Your task to perform on an android device: Set an alarm for 7am Image 0: 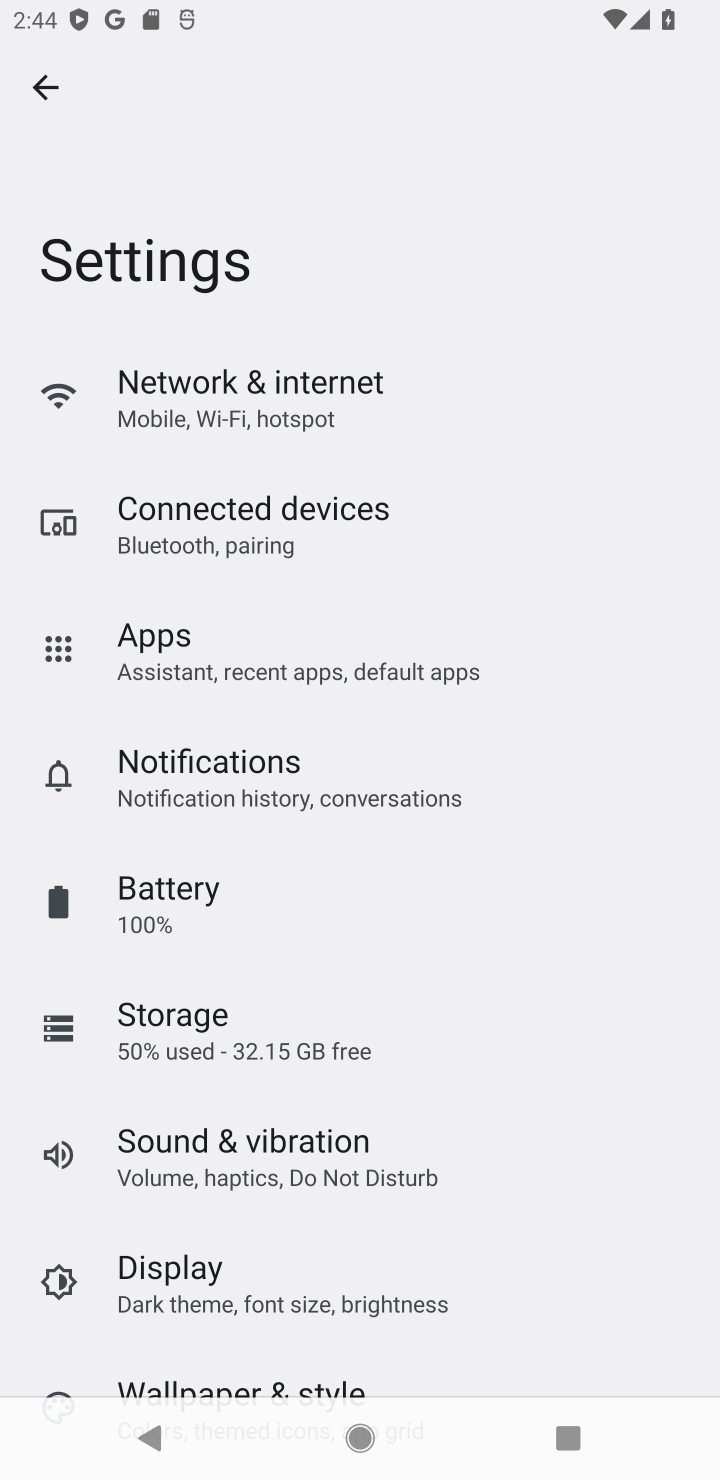
Step 0: press home button
Your task to perform on an android device: Set an alarm for 7am Image 1: 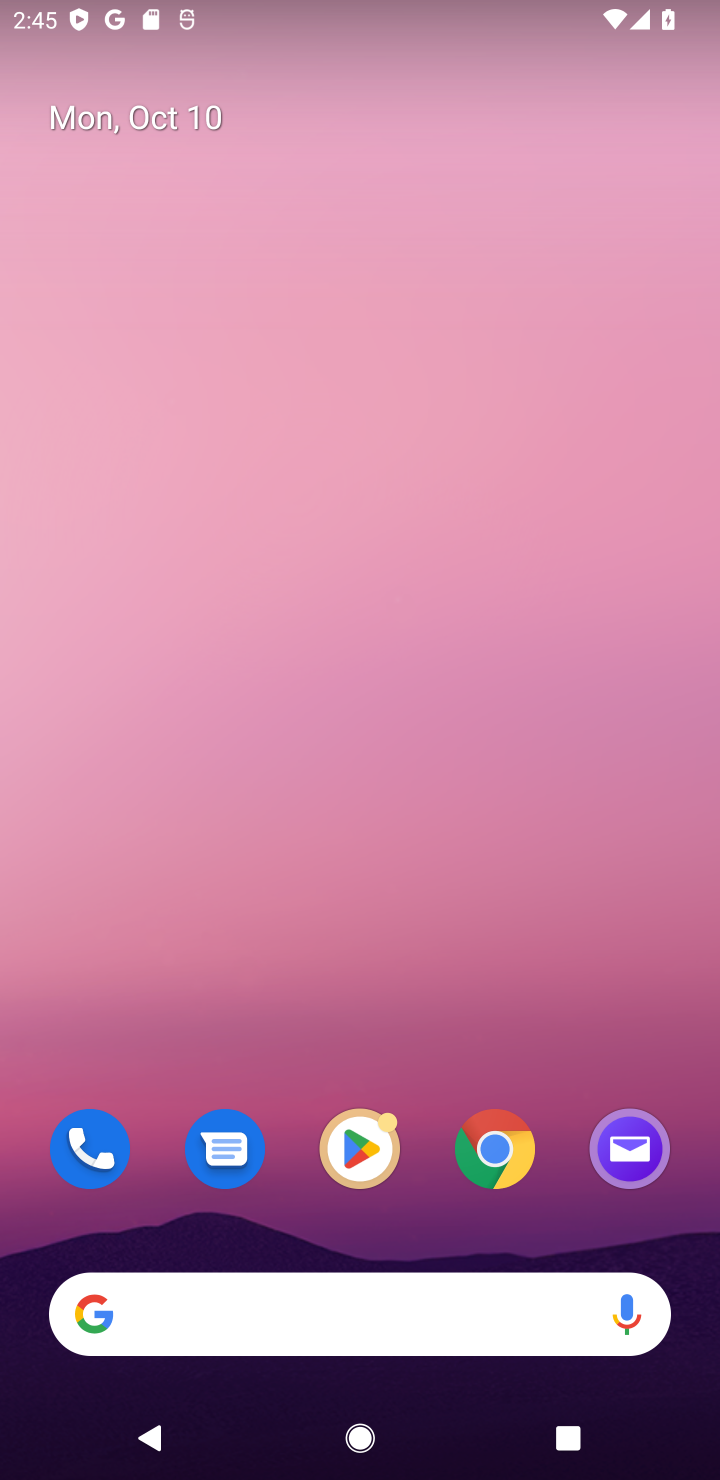
Step 1: drag from (301, 1232) to (330, 166)
Your task to perform on an android device: Set an alarm for 7am Image 2: 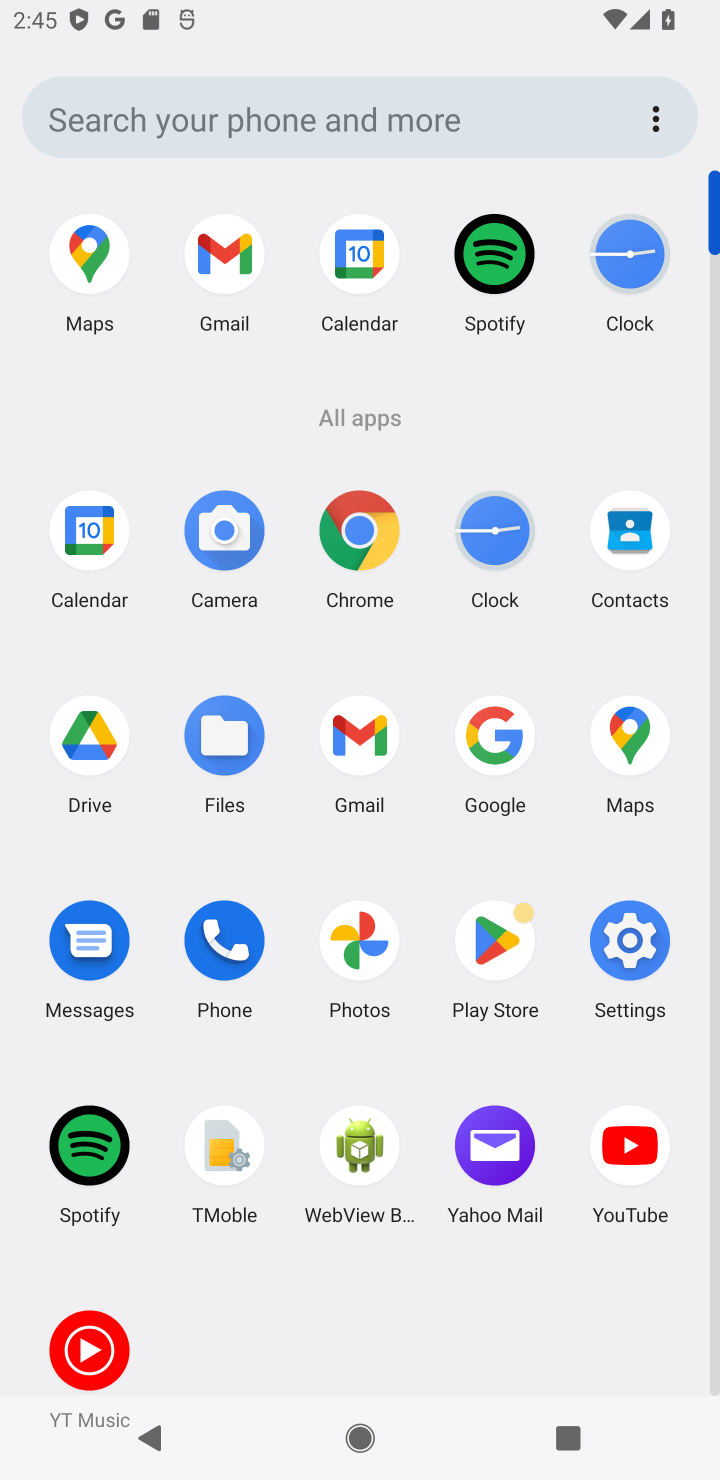
Step 2: click (510, 544)
Your task to perform on an android device: Set an alarm for 7am Image 3: 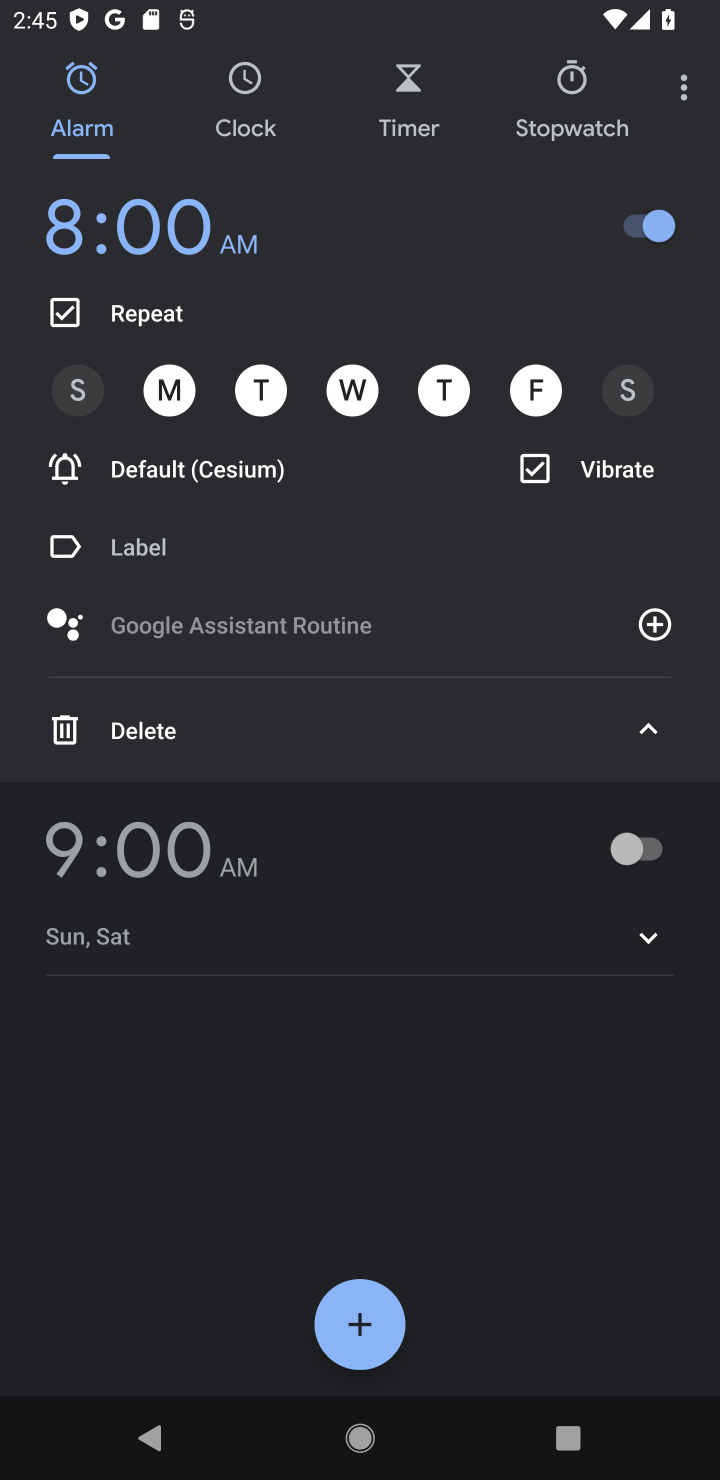
Step 3: click (362, 1333)
Your task to perform on an android device: Set an alarm for 7am Image 4: 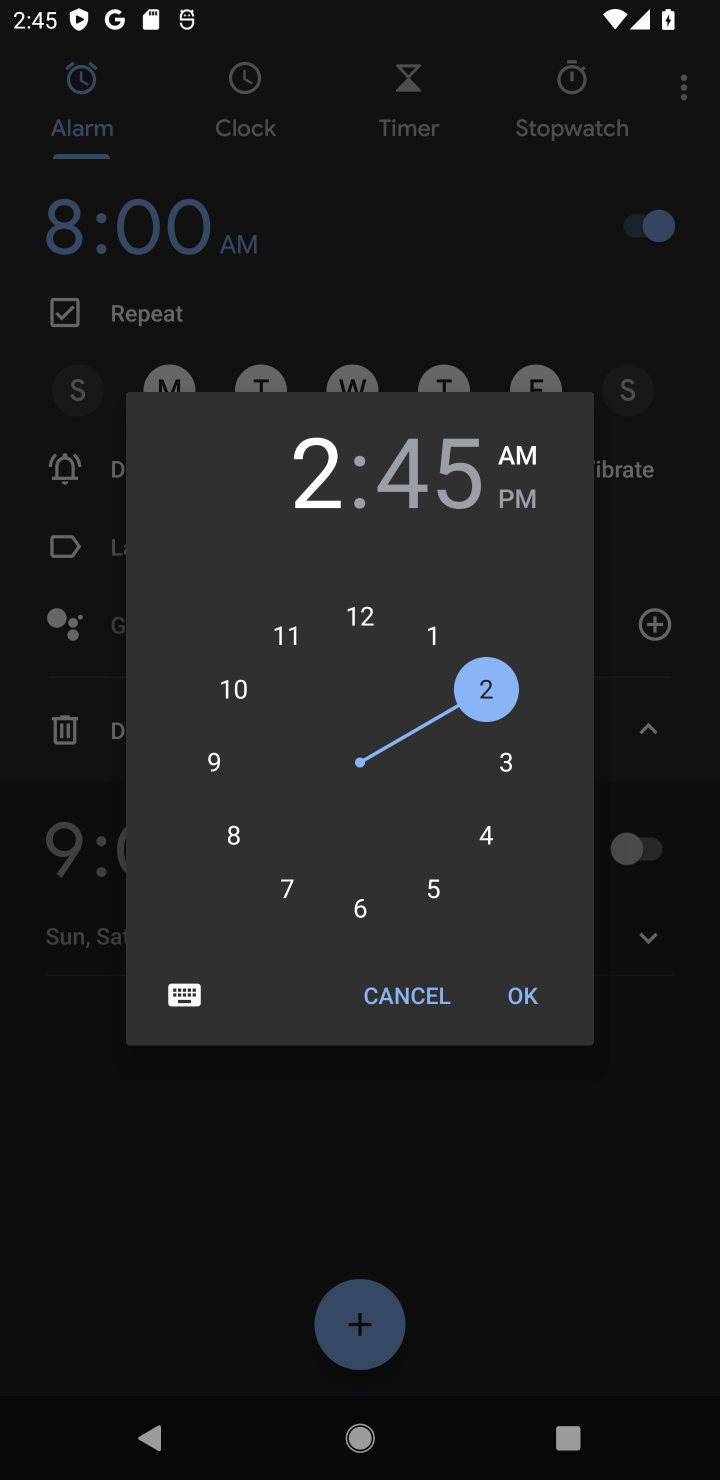
Step 4: click (290, 906)
Your task to perform on an android device: Set an alarm for 7am Image 5: 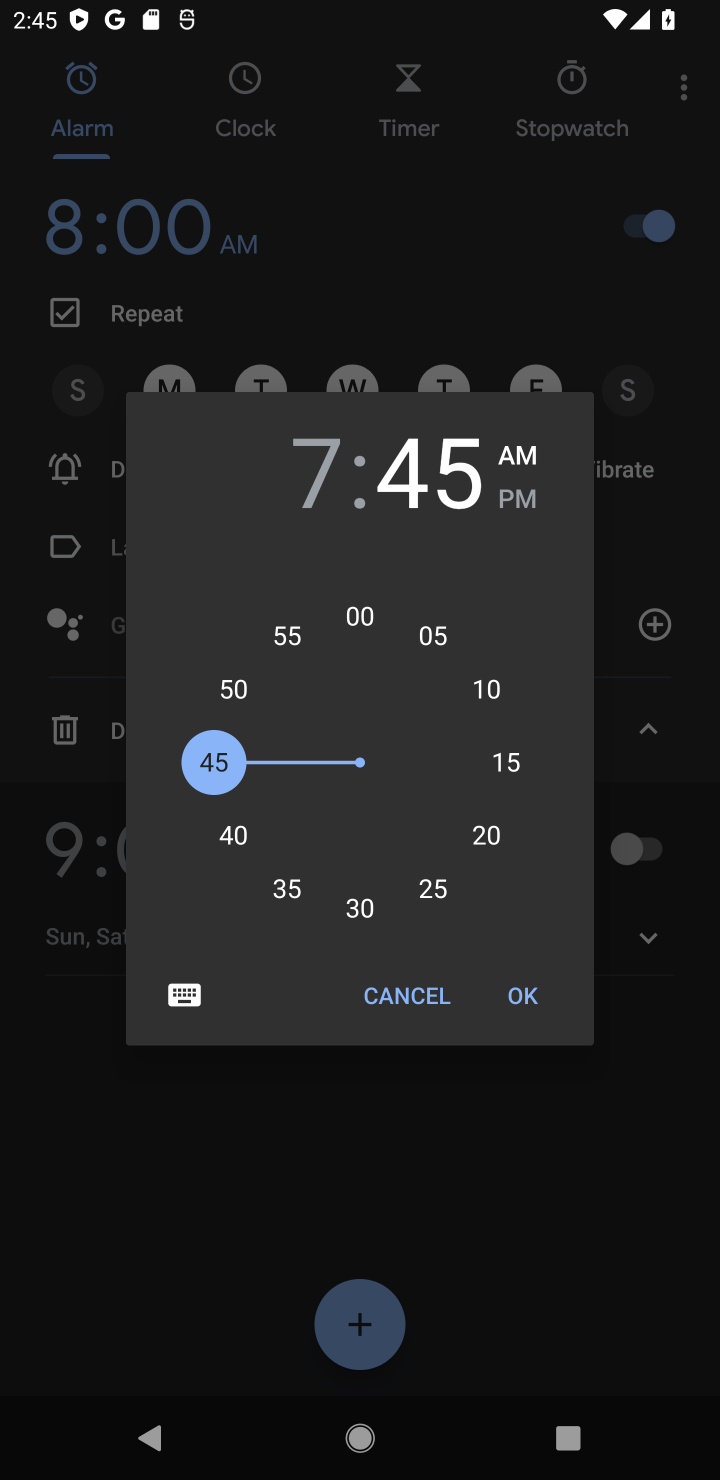
Step 5: click (366, 615)
Your task to perform on an android device: Set an alarm for 7am Image 6: 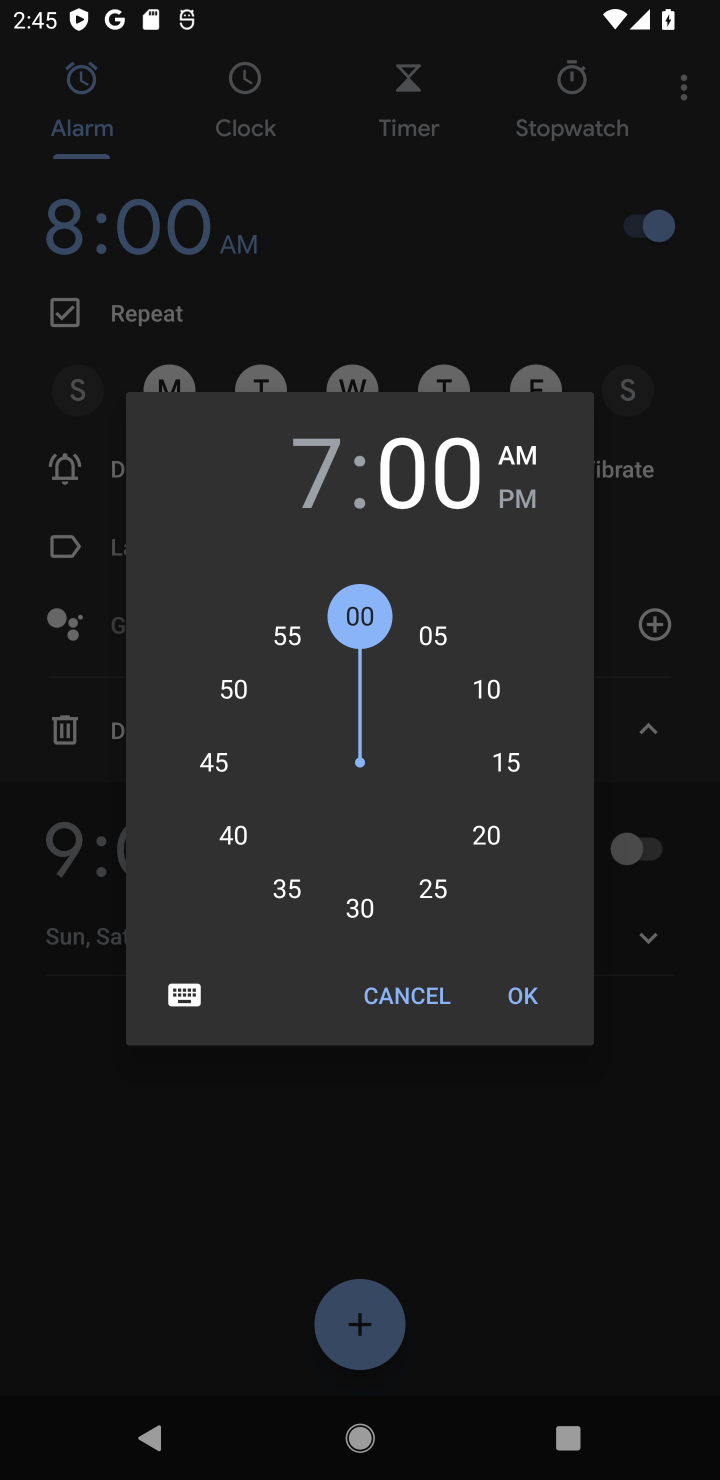
Step 6: click (523, 991)
Your task to perform on an android device: Set an alarm for 7am Image 7: 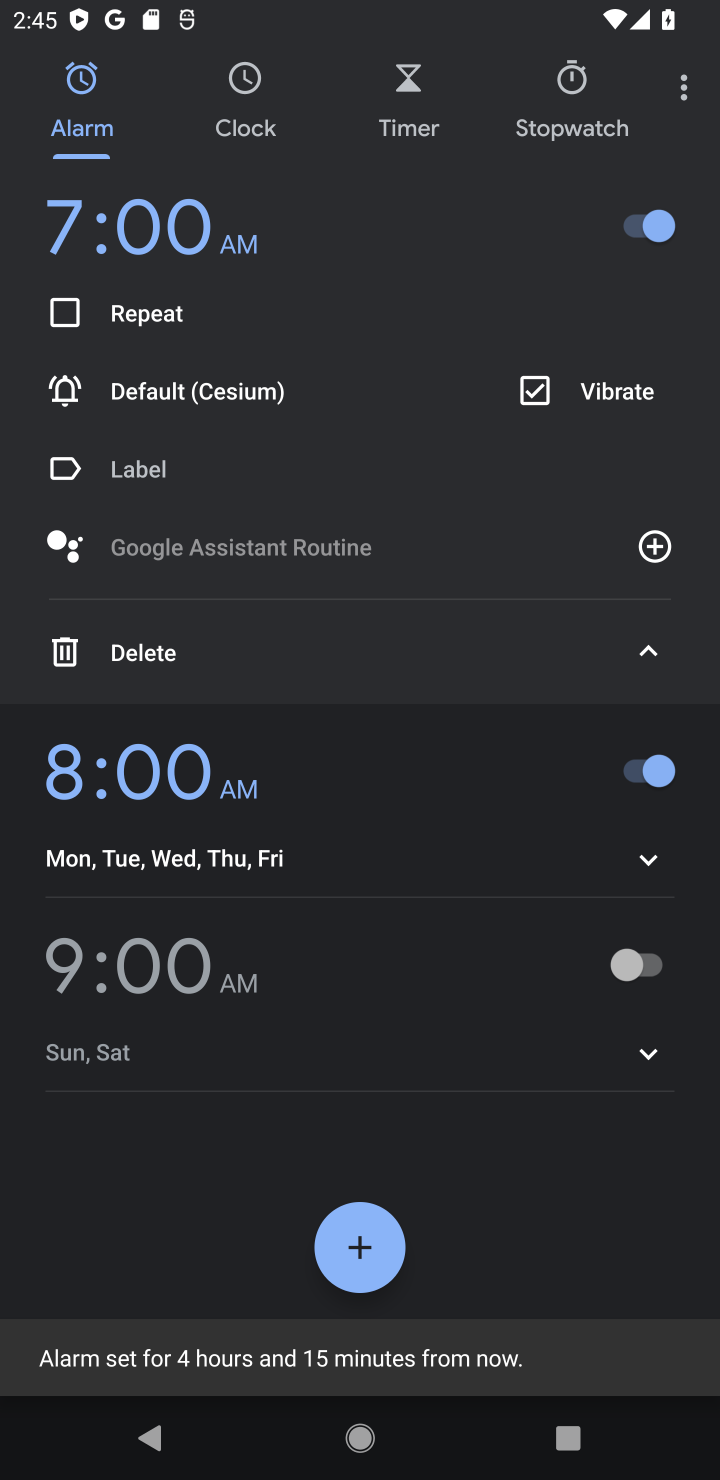
Step 7: task complete